Your task to perform on an android device: Show me the alarms in the clock app Image 0: 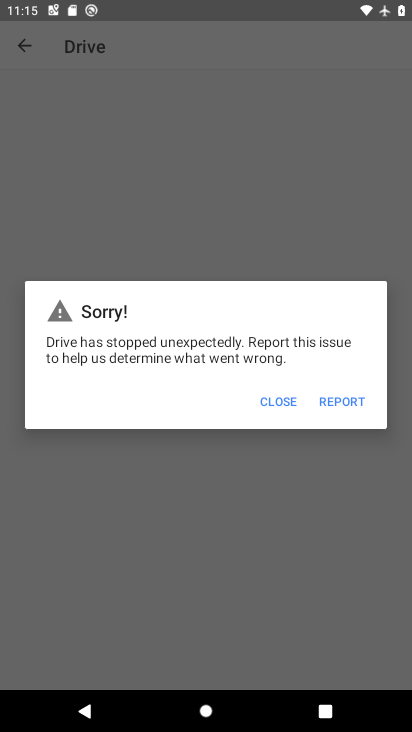
Step 0: press home button
Your task to perform on an android device: Show me the alarms in the clock app Image 1: 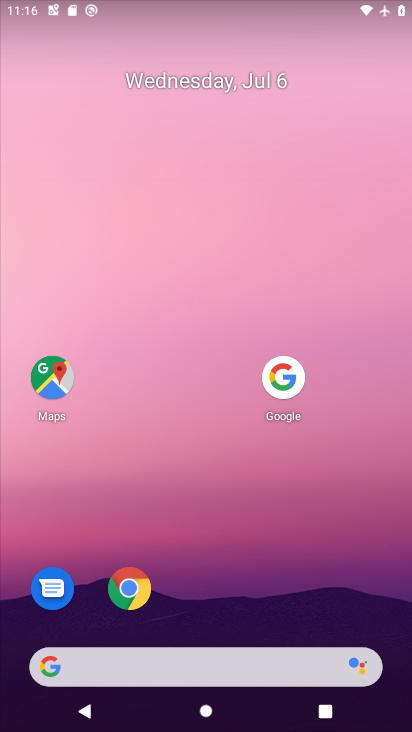
Step 1: drag from (191, 667) to (283, 85)
Your task to perform on an android device: Show me the alarms in the clock app Image 2: 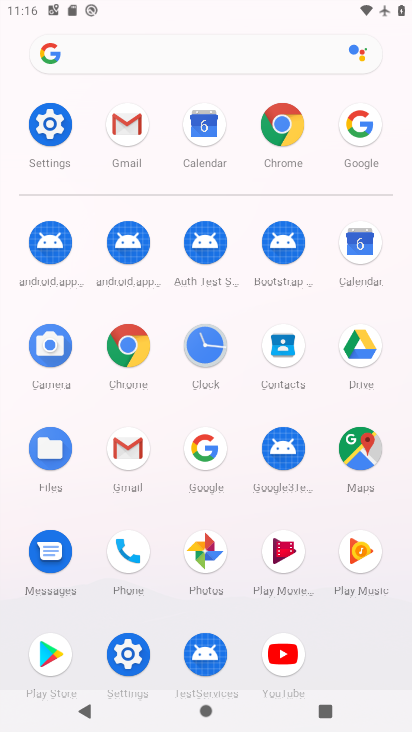
Step 2: click (202, 350)
Your task to perform on an android device: Show me the alarms in the clock app Image 3: 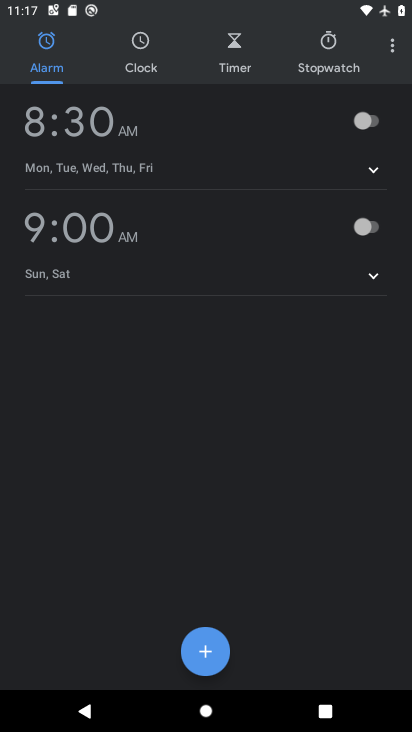
Step 3: task complete